Your task to perform on an android device: Open my contact list Image 0: 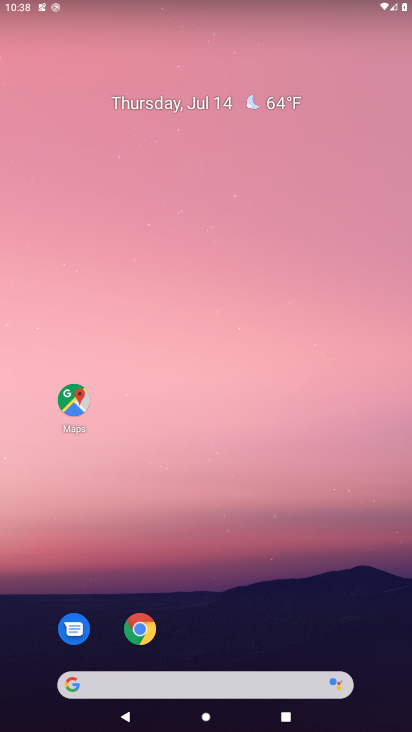
Step 0: drag from (191, 670) to (191, 328)
Your task to perform on an android device: Open my contact list Image 1: 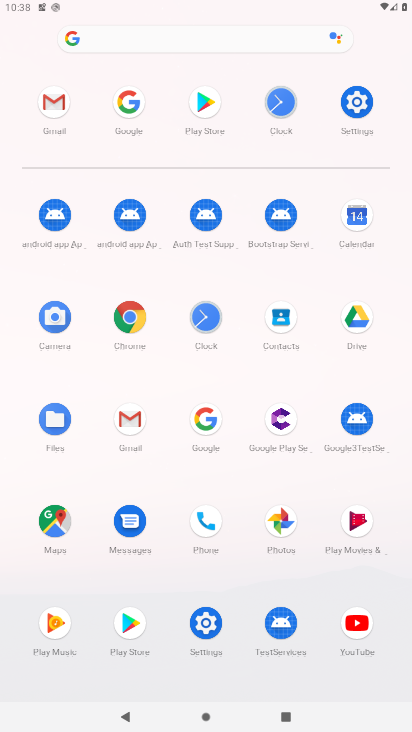
Step 1: click (276, 319)
Your task to perform on an android device: Open my contact list Image 2: 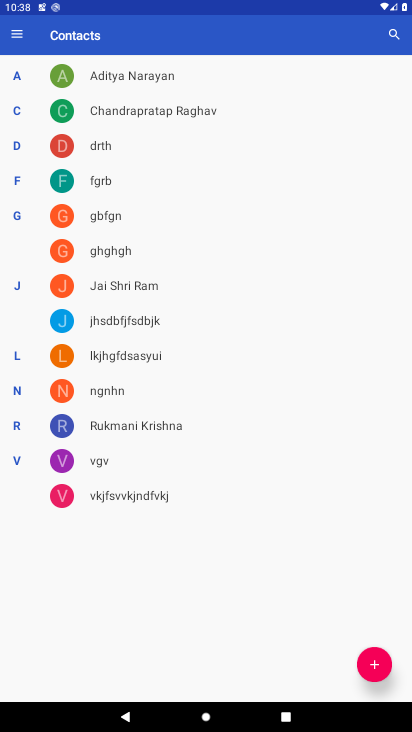
Step 2: task complete